Your task to perform on an android device: Go to Google Image 0: 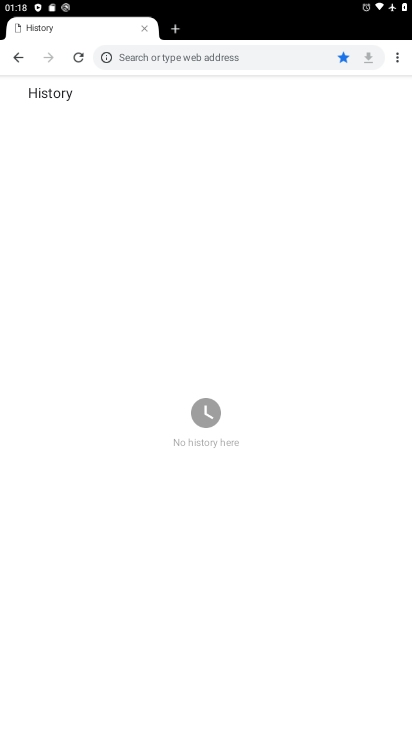
Step 0: press home button
Your task to perform on an android device: Go to Google Image 1: 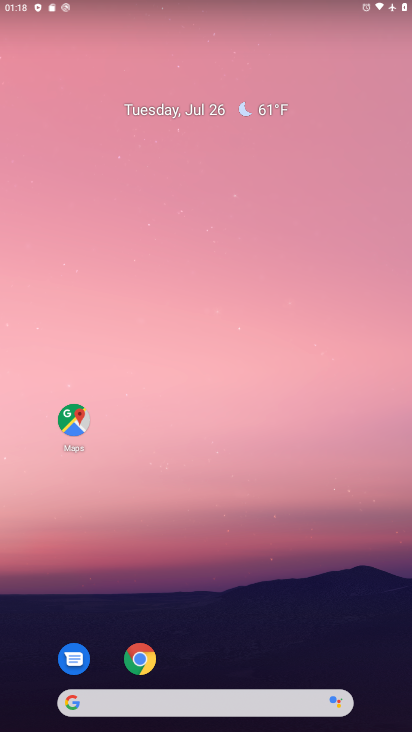
Step 1: drag from (268, 586) to (273, 35)
Your task to perform on an android device: Go to Google Image 2: 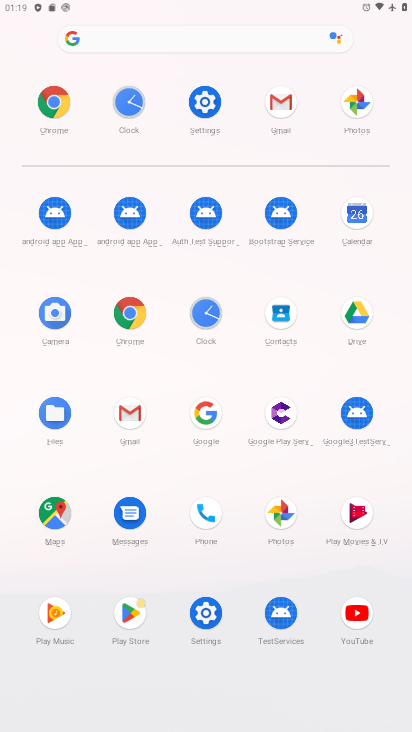
Step 2: click (206, 411)
Your task to perform on an android device: Go to Google Image 3: 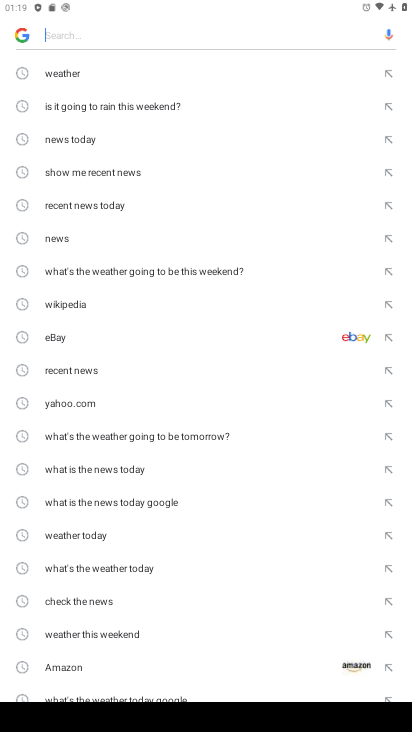
Step 3: task complete